Your task to perform on an android device: Open privacy settings Image 0: 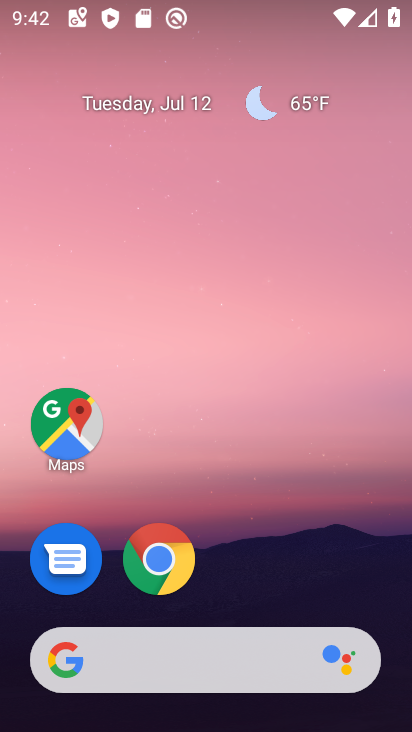
Step 0: drag from (329, 586) to (323, 96)
Your task to perform on an android device: Open privacy settings Image 1: 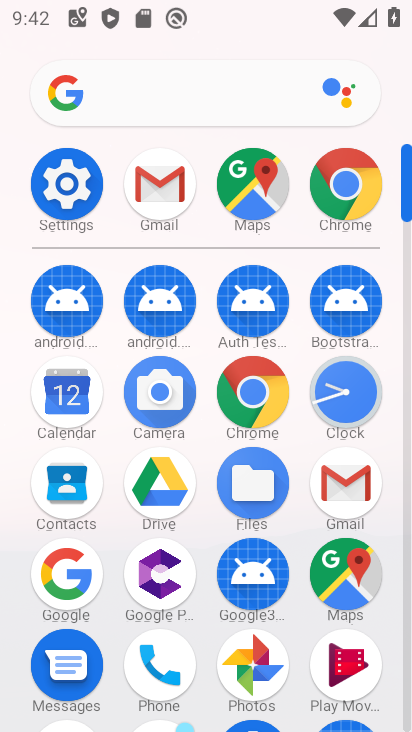
Step 1: click (67, 192)
Your task to perform on an android device: Open privacy settings Image 2: 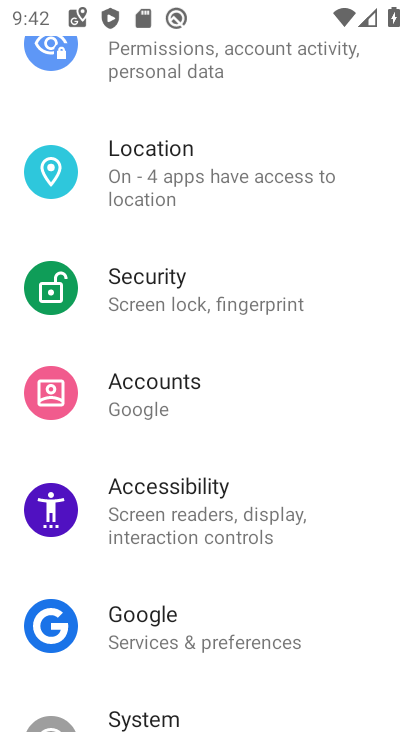
Step 2: drag from (351, 233) to (351, 346)
Your task to perform on an android device: Open privacy settings Image 3: 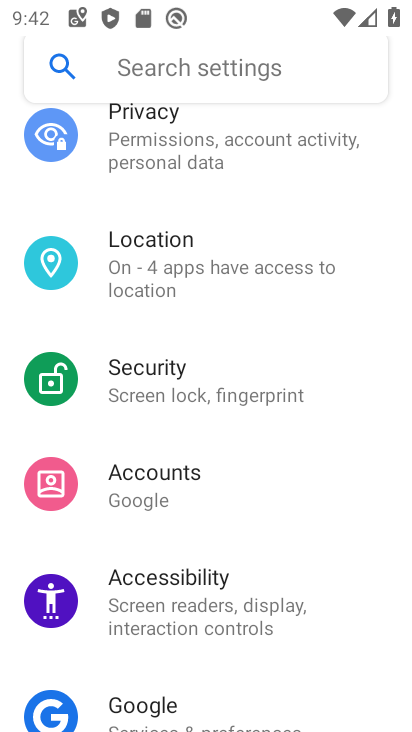
Step 3: drag from (379, 197) to (379, 339)
Your task to perform on an android device: Open privacy settings Image 4: 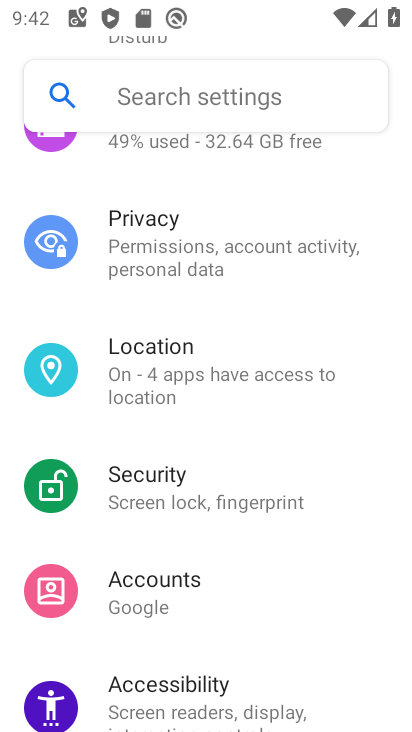
Step 4: drag from (371, 169) to (369, 308)
Your task to perform on an android device: Open privacy settings Image 5: 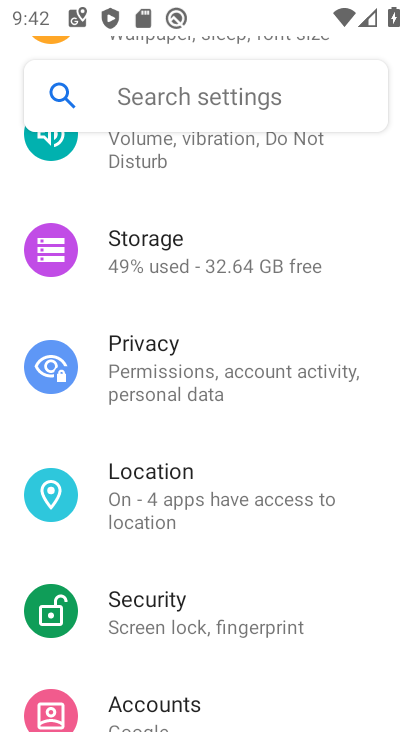
Step 5: drag from (367, 241) to (368, 351)
Your task to perform on an android device: Open privacy settings Image 6: 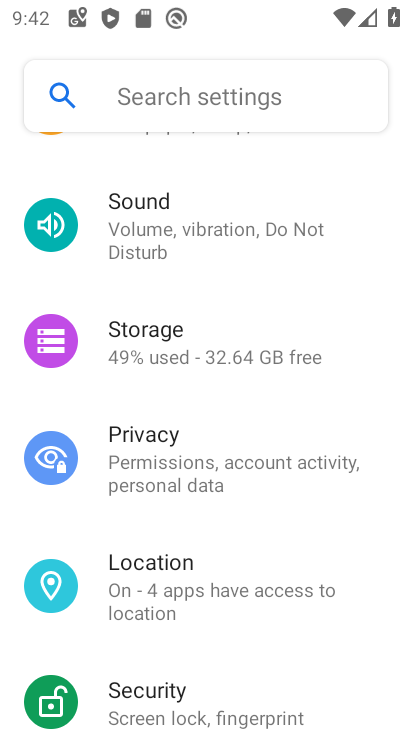
Step 6: drag from (354, 195) to (355, 311)
Your task to perform on an android device: Open privacy settings Image 7: 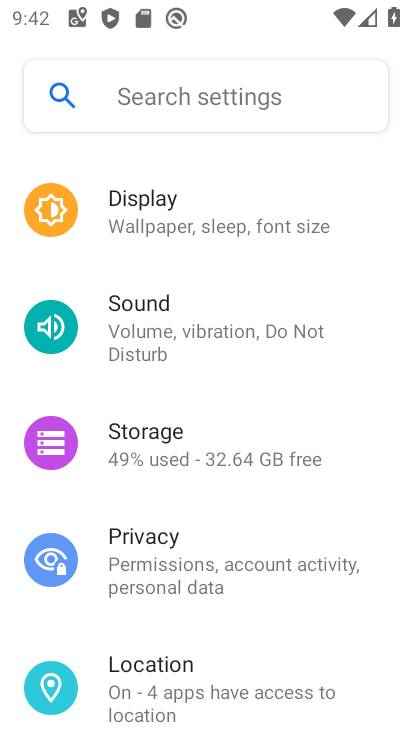
Step 7: drag from (351, 191) to (351, 328)
Your task to perform on an android device: Open privacy settings Image 8: 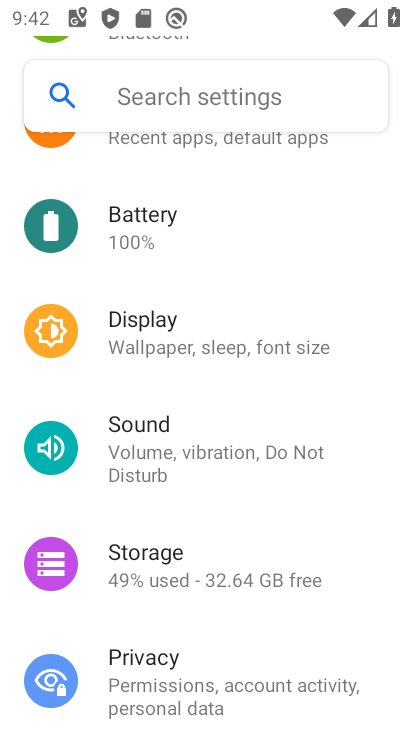
Step 8: drag from (370, 167) to (372, 338)
Your task to perform on an android device: Open privacy settings Image 9: 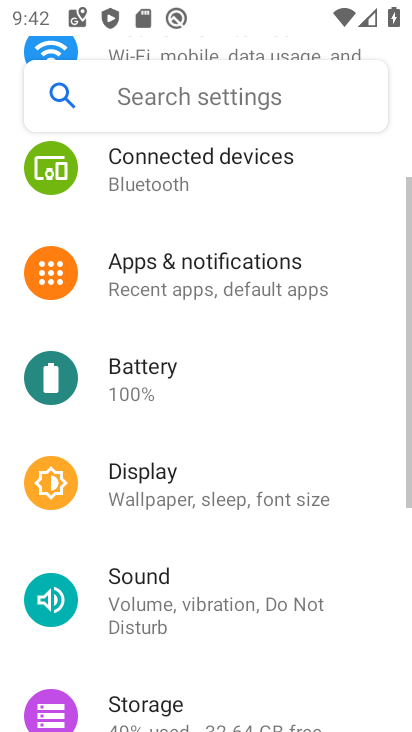
Step 9: drag from (367, 360) to (363, 235)
Your task to perform on an android device: Open privacy settings Image 10: 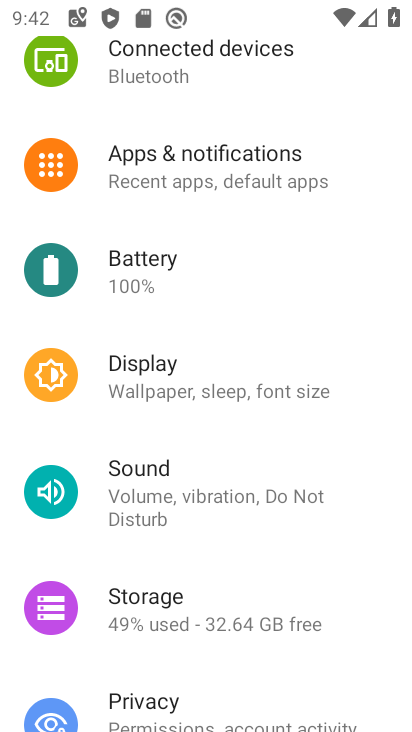
Step 10: drag from (369, 344) to (363, 219)
Your task to perform on an android device: Open privacy settings Image 11: 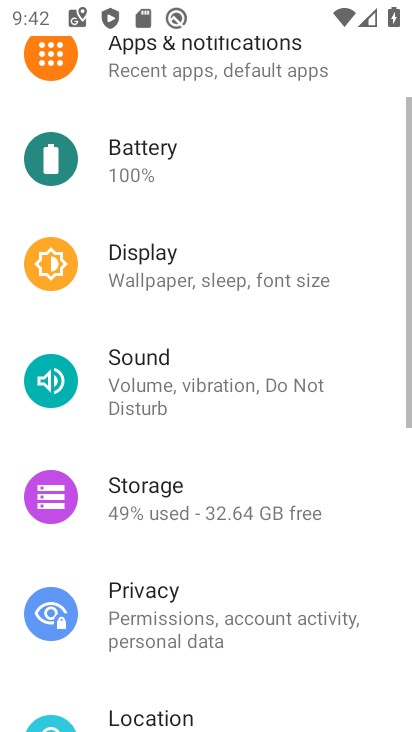
Step 11: drag from (356, 341) to (348, 245)
Your task to perform on an android device: Open privacy settings Image 12: 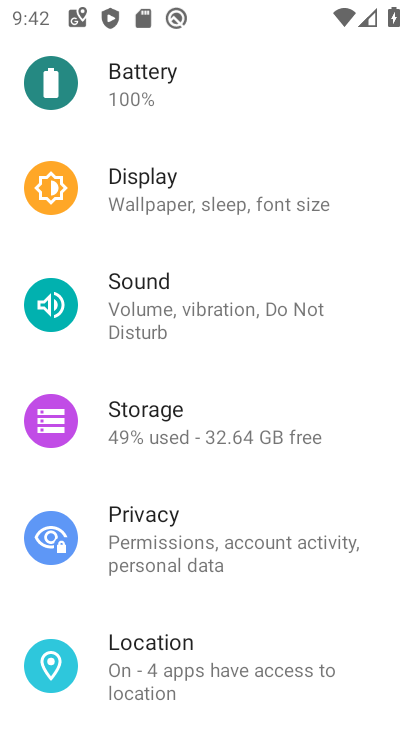
Step 12: drag from (350, 372) to (351, 269)
Your task to perform on an android device: Open privacy settings Image 13: 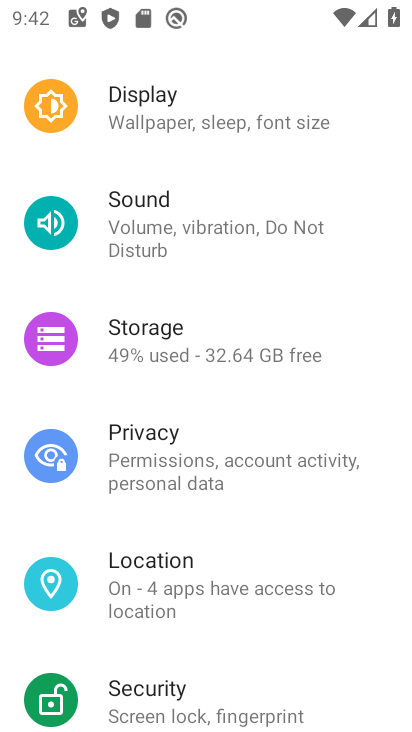
Step 13: drag from (369, 388) to (368, 292)
Your task to perform on an android device: Open privacy settings Image 14: 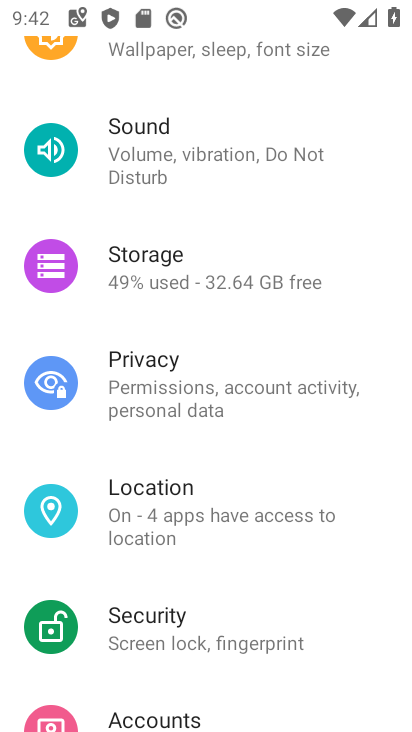
Step 14: click (300, 389)
Your task to perform on an android device: Open privacy settings Image 15: 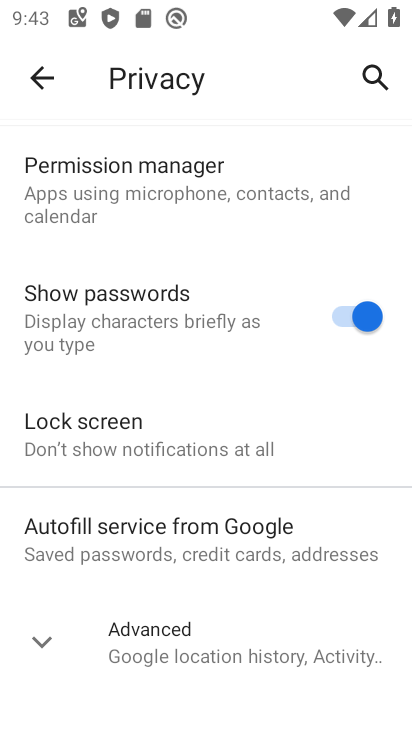
Step 15: task complete